Your task to perform on an android device: What's the weather going to be tomorrow? Image 0: 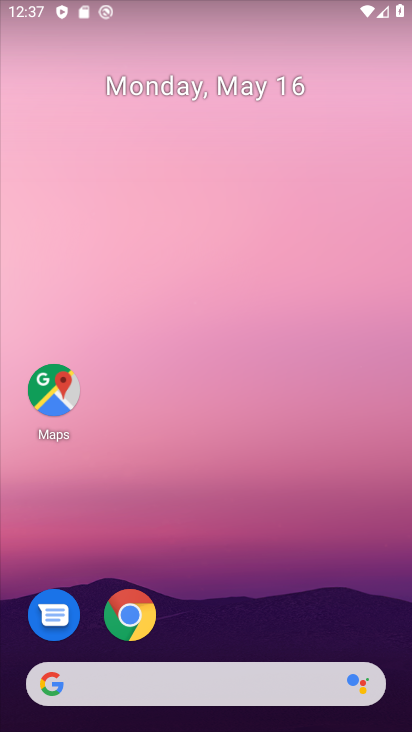
Step 0: click (134, 617)
Your task to perform on an android device: What's the weather going to be tomorrow? Image 1: 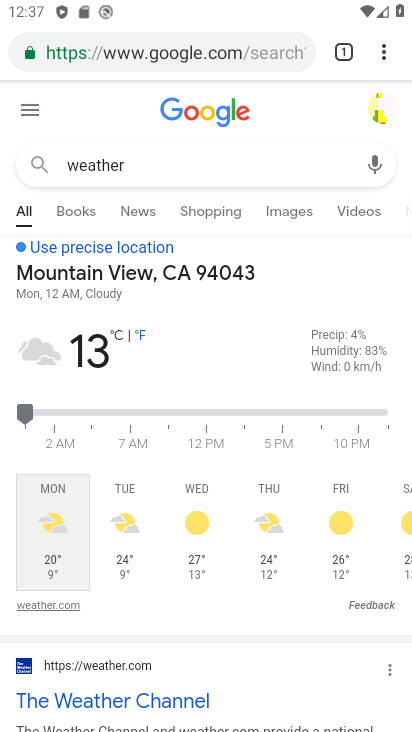
Step 1: click (117, 497)
Your task to perform on an android device: What's the weather going to be tomorrow? Image 2: 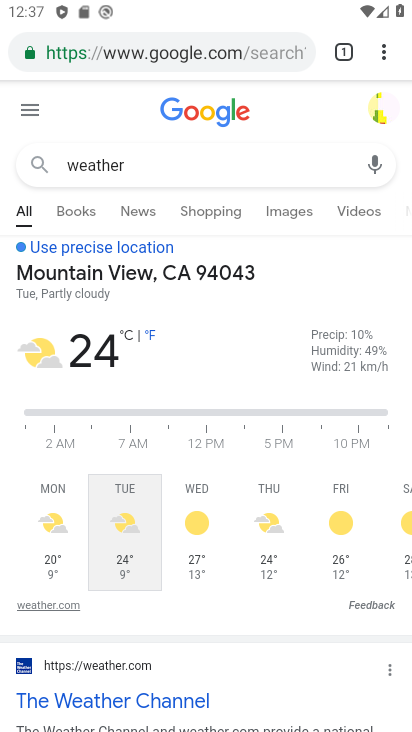
Step 2: task complete